Your task to perform on an android device: Open calendar and show me the third week of next month Image 0: 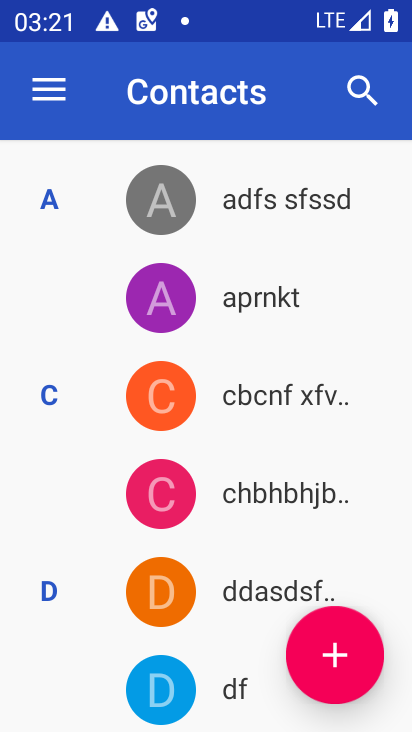
Step 0: press home button
Your task to perform on an android device: Open calendar and show me the third week of next month Image 1: 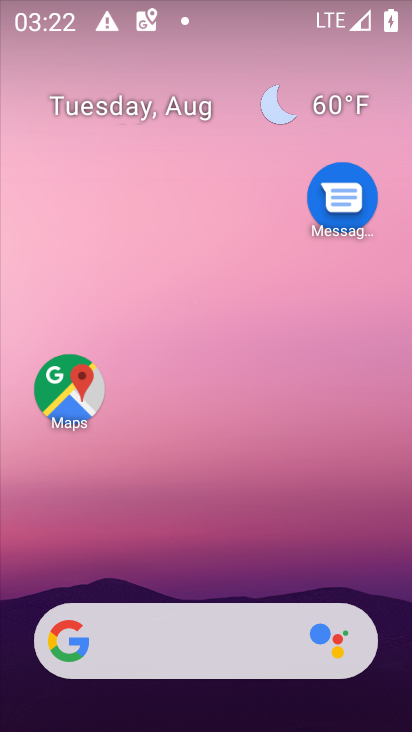
Step 1: drag from (254, 550) to (293, 68)
Your task to perform on an android device: Open calendar and show me the third week of next month Image 2: 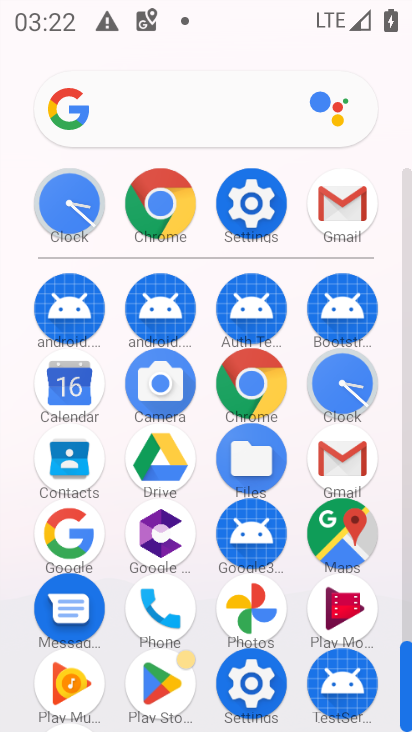
Step 2: click (76, 388)
Your task to perform on an android device: Open calendar and show me the third week of next month Image 3: 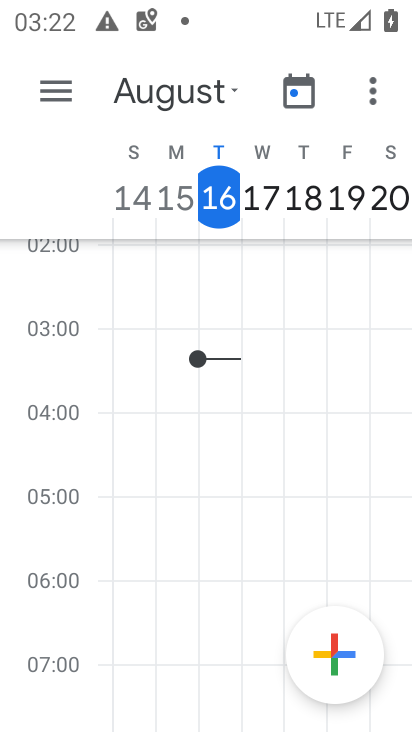
Step 3: task complete